Your task to perform on an android device: Go to Google Image 0: 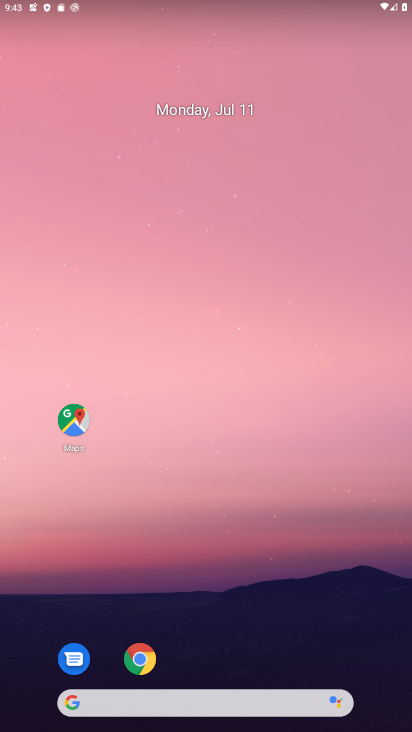
Step 0: drag from (283, 654) to (411, 54)
Your task to perform on an android device: Go to Google Image 1: 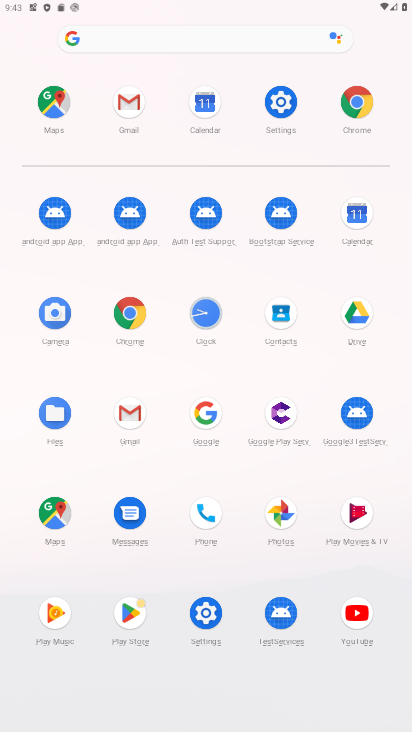
Step 1: click (199, 414)
Your task to perform on an android device: Go to Google Image 2: 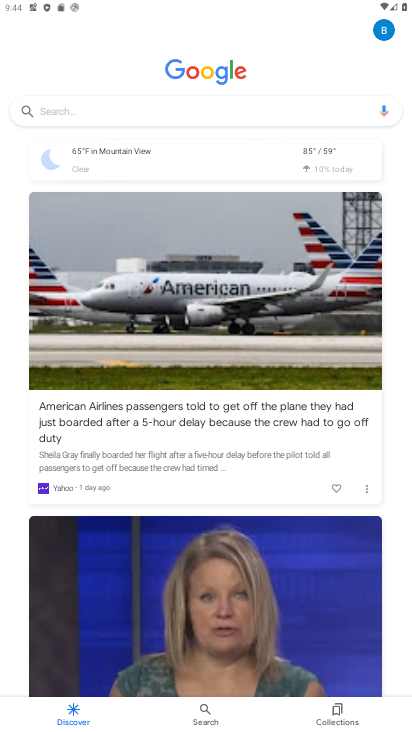
Step 2: task complete